Your task to perform on an android device: turn on the 12-hour format for clock Image 0: 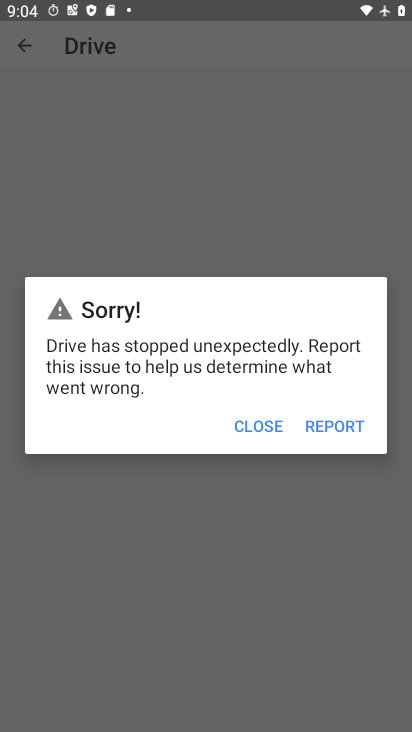
Step 0: press home button
Your task to perform on an android device: turn on the 12-hour format for clock Image 1: 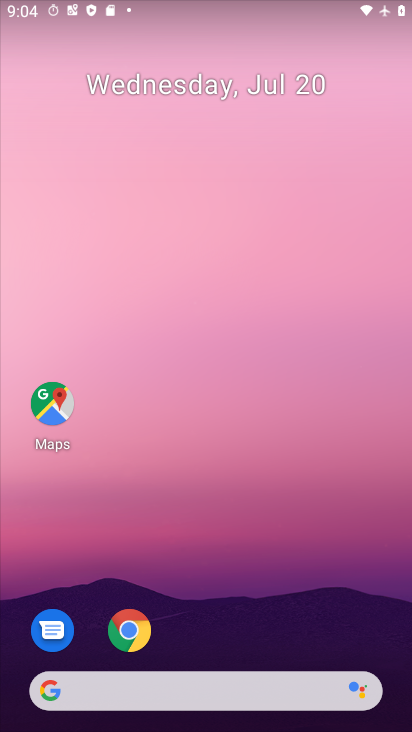
Step 1: drag from (181, 605) to (221, 356)
Your task to perform on an android device: turn on the 12-hour format for clock Image 2: 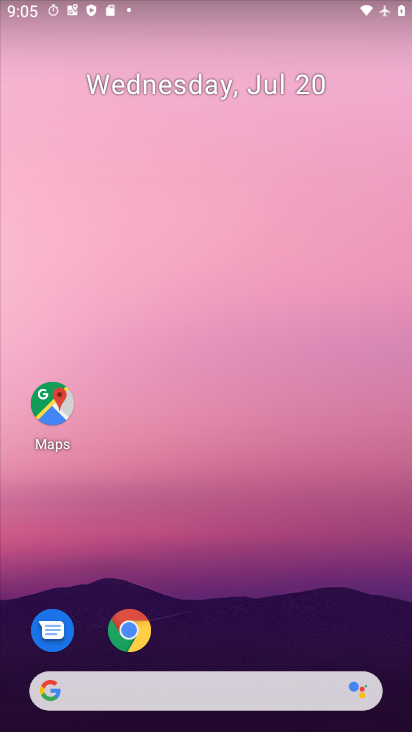
Step 2: drag from (222, 684) to (264, 125)
Your task to perform on an android device: turn on the 12-hour format for clock Image 3: 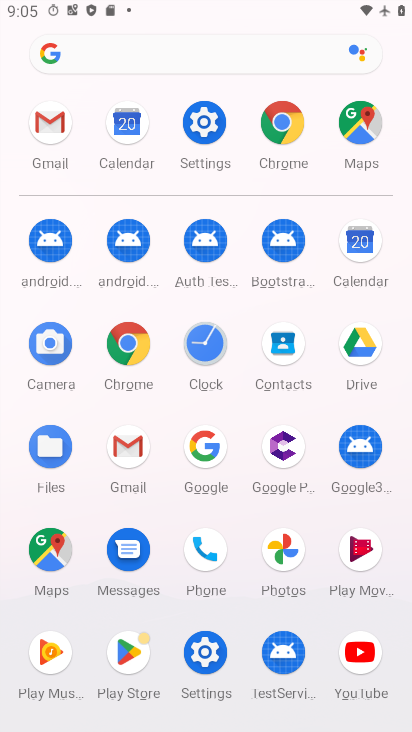
Step 3: click (213, 361)
Your task to perform on an android device: turn on the 12-hour format for clock Image 4: 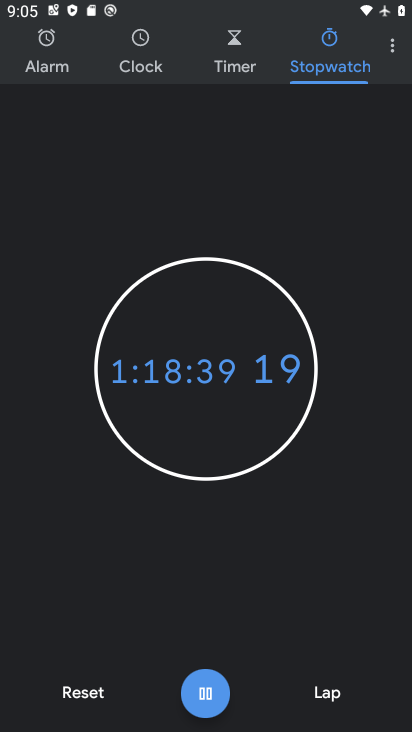
Step 4: click (388, 50)
Your task to perform on an android device: turn on the 12-hour format for clock Image 5: 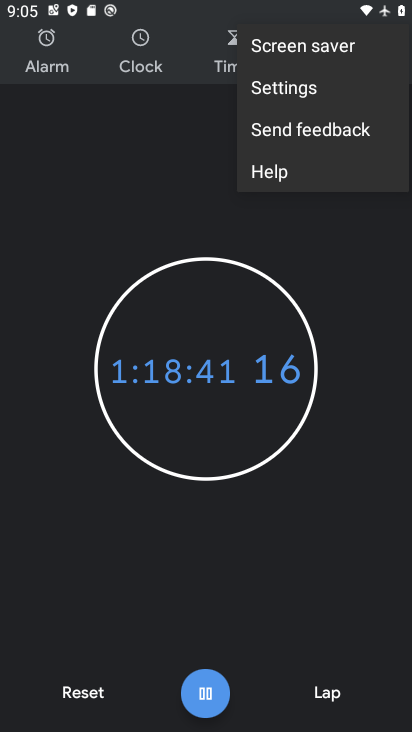
Step 5: click (269, 93)
Your task to perform on an android device: turn on the 12-hour format for clock Image 6: 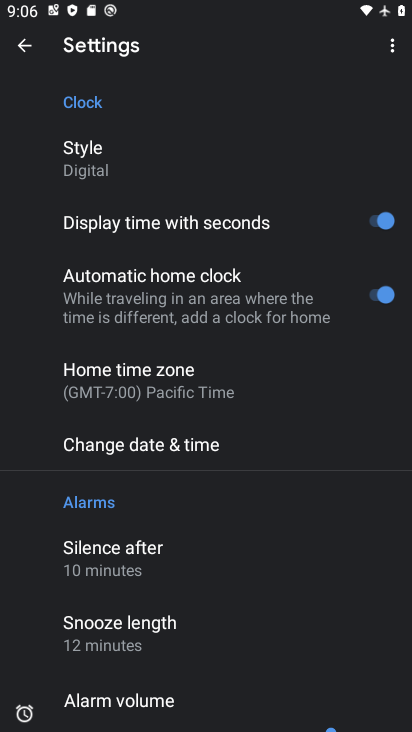
Step 6: click (193, 451)
Your task to perform on an android device: turn on the 12-hour format for clock Image 7: 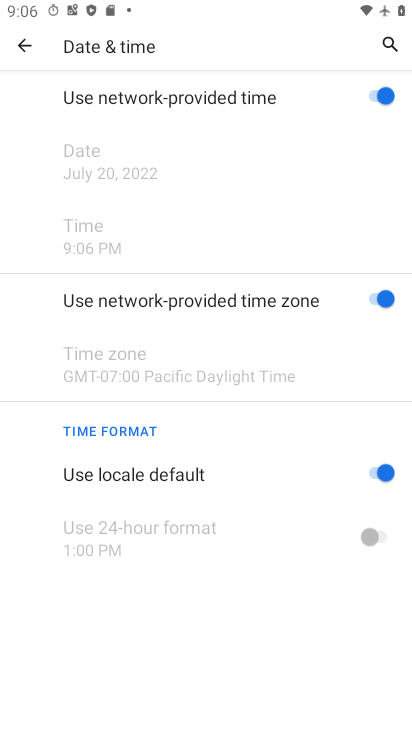
Step 7: task complete